Your task to perform on an android device: uninstall "DuckDuckGo Privacy Browser" Image 0: 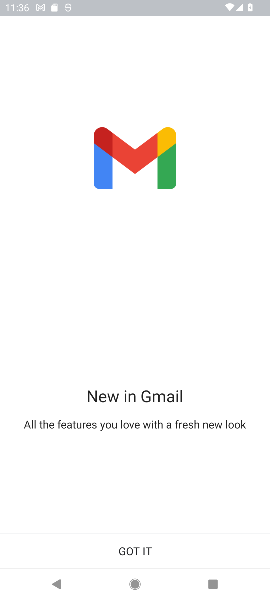
Step 0: press home button
Your task to perform on an android device: uninstall "DuckDuckGo Privacy Browser" Image 1: 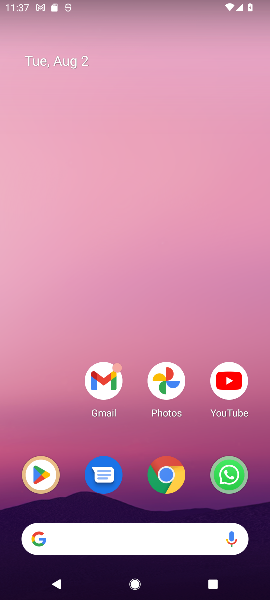
Step 1: click (42, 475)
Your task to perform on an android device: uninstall "DuckDuckGo Privacy Browser" Image 2: 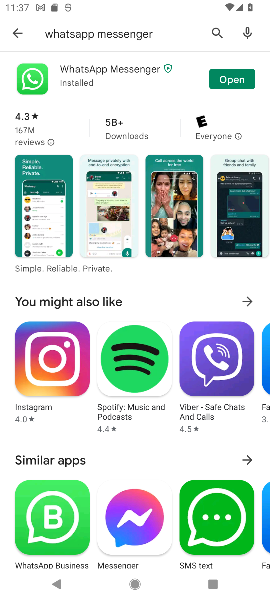
Step 2: click (217, 27)
Your task to perform on an android device: uninstall "DuckDuckGo Privacy Browser" Image 3: 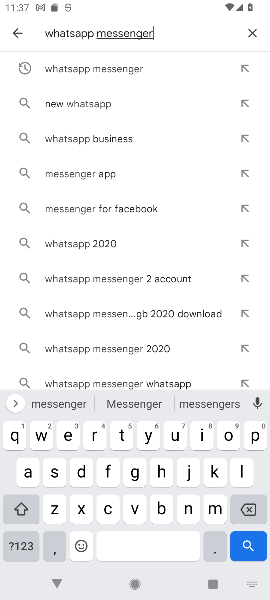
Step 3: click (249, 29)
Your task to perform on an android device: uninstall "DuckDuckGo Privacy Browser" Image 4: 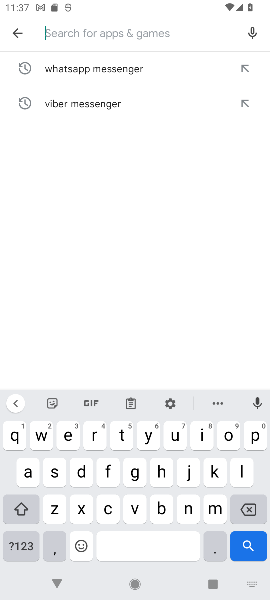
Step 4: type "DuckDuckGo Privacy Browse"
Your task to perform on an android device: uninstall "DuckDuckGo Privacy Browser" Image 5: 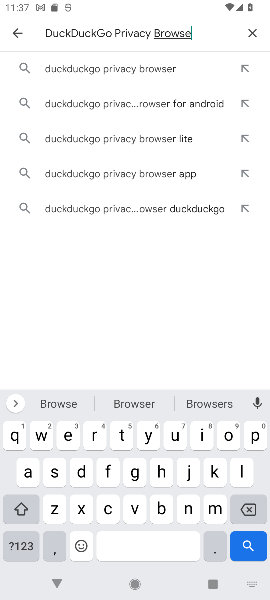
Step 5: click (75, 63)
Your task to perform on an android device: uninstall "DuckDuckGo Privacy Browser" Image 6: 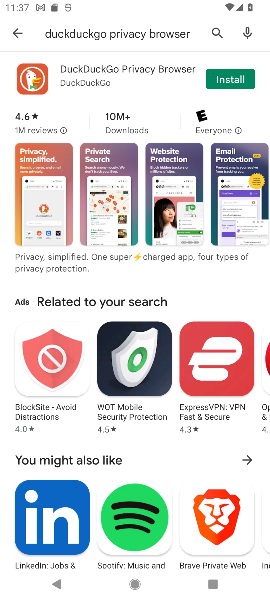
Step 6: task complete